Your task to perform on an android device: Open Google Image 0: 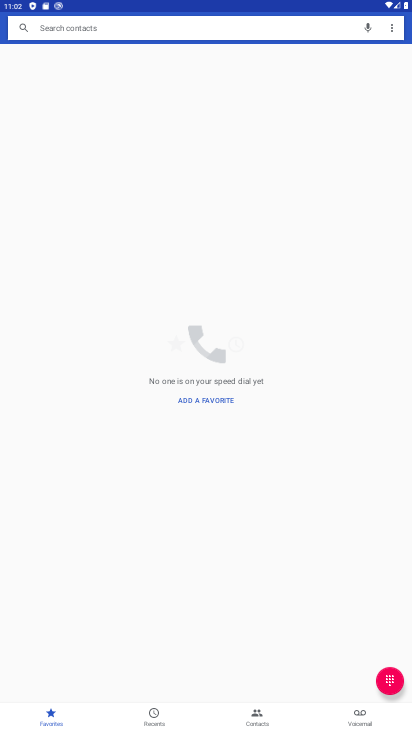
Step 0: press home button
Your task to perform on an android device: Open Google Image 1: 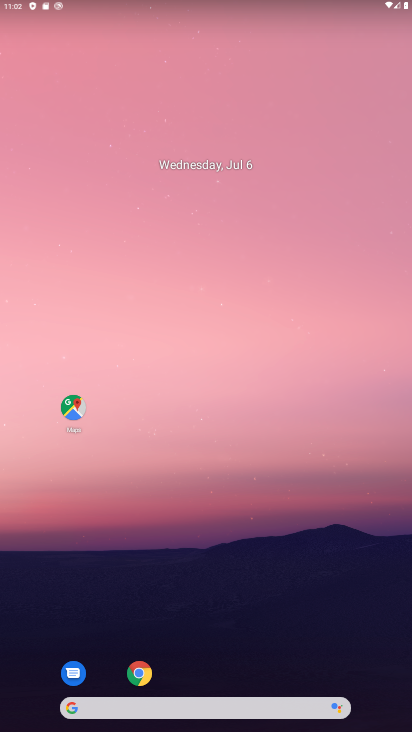
Step 1: drag from (317, 619) to (346, 488)
Your task to perform on an android device: Open Google Image 2: 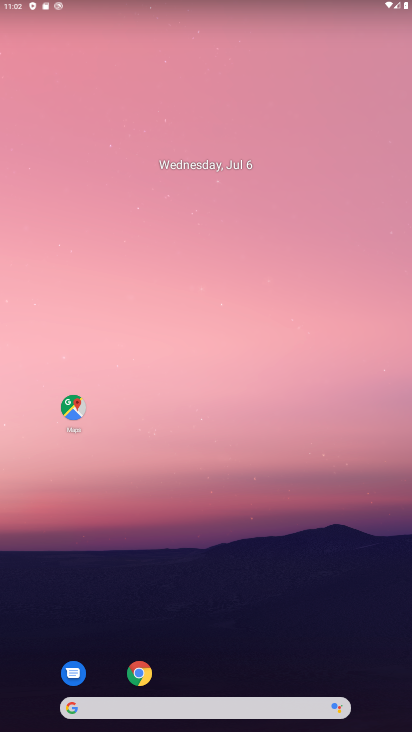
Step 2: drag from (223, 688) to (278, 119)
Your task to perform on an android device: Open Google Image 3: 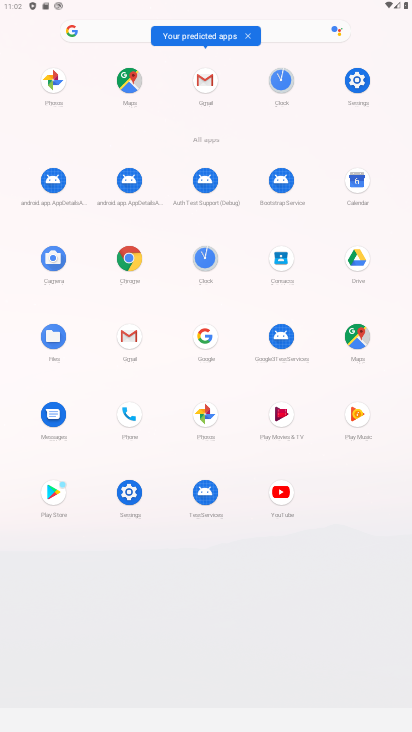
Step 3: click (206, 342)
Your task to perform on an android device: Open Google Image 4: 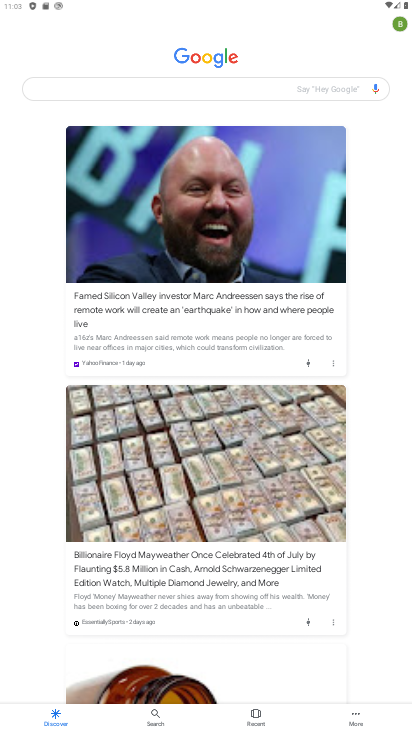
Step 4: task complete